Your task to perform on an android device: Is it going to rain this weekend? Image 0: 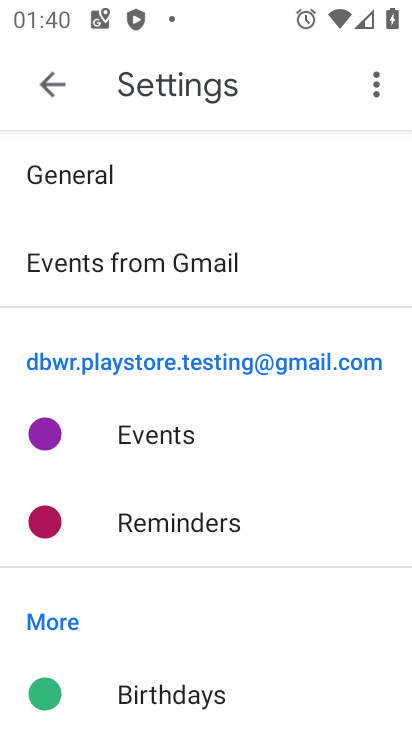
Step 0: press home button
Your task to perform on an android device: Is it going to rain this weekend? Image 1: 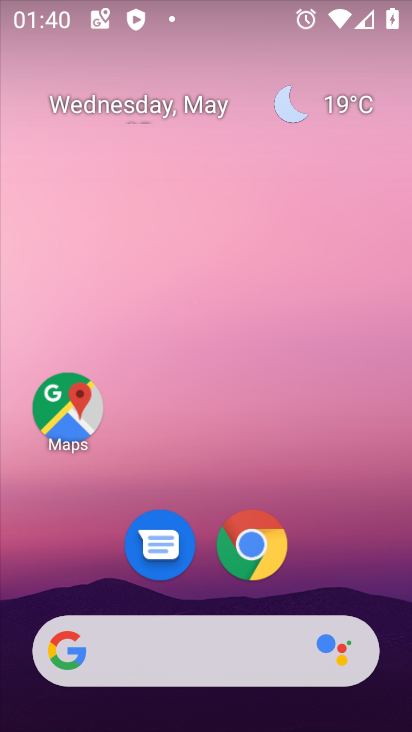
Step 1: click (350, 105)
Your task to perform on an android device: Is it going to rain this weekend? Image 2: 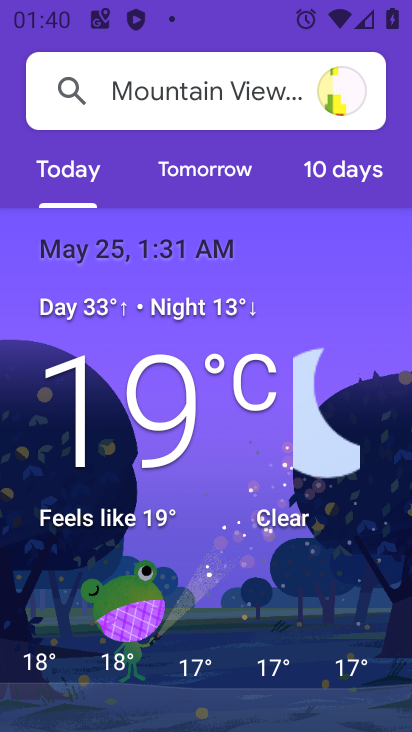
Step 2: click (335, 182)
Your task to perform on an android device: Is it going to rain this weekend? Image 3: 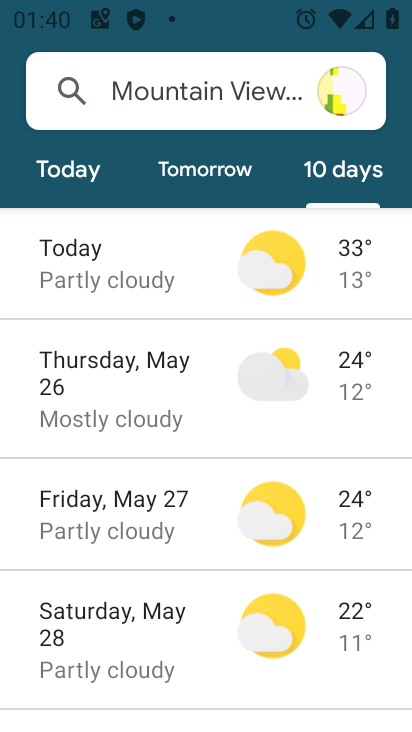
Step 3: task complete